Your task to perform on an android device: delete a single message in the gmail app Image 0: 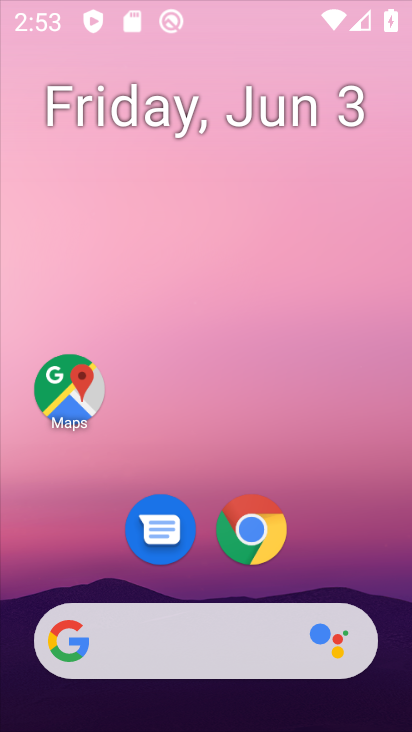
Step 0: drag from (389, 634) to (409, 169)
Your task to perform on an android device: delete a single message in the gmail app Image 1: 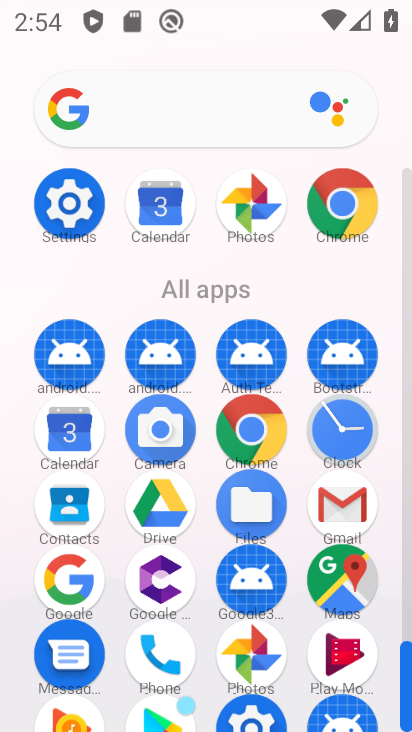
Step 1: click (332, 496)
Your task to perform on an android device: delete a single message in the gmail app Image 2: 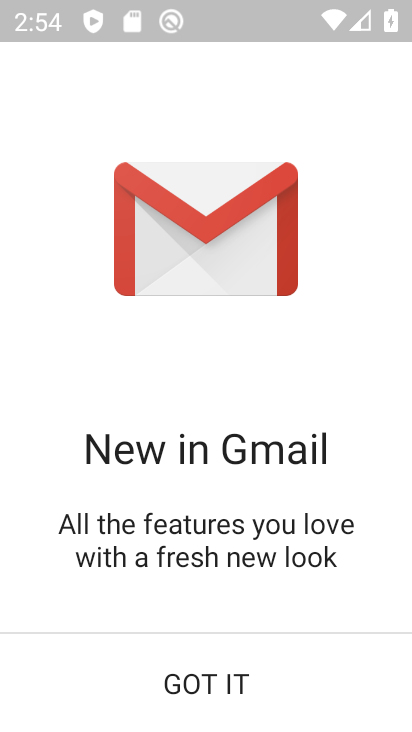
Step 2: click (231, 701)
Your task to perform on an android device: delete a single message in the gmail app Image 3: 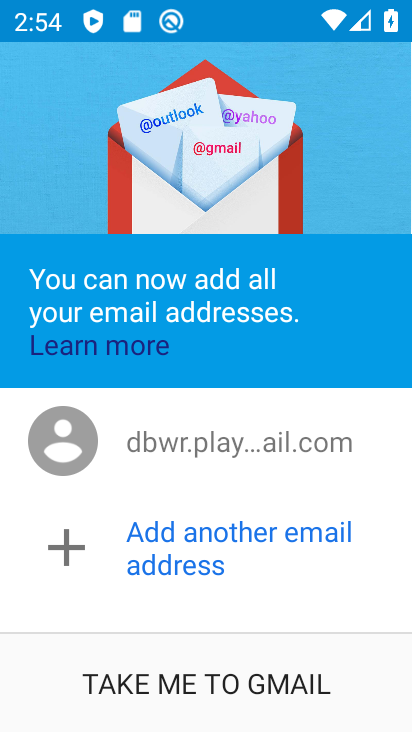
Step 3: click (247, 684)
Your task to perform on an android device: delete a single message in the gmail app Image 4: 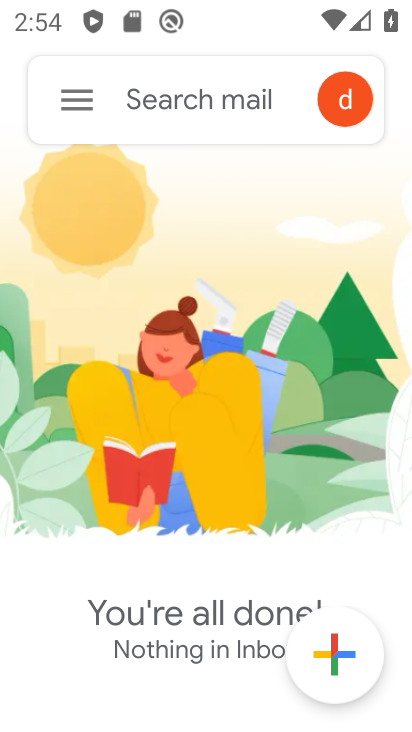
Step 4: click (63, 87)
Your task to perform on an android device: delete a single message in the gmail app Image 5: 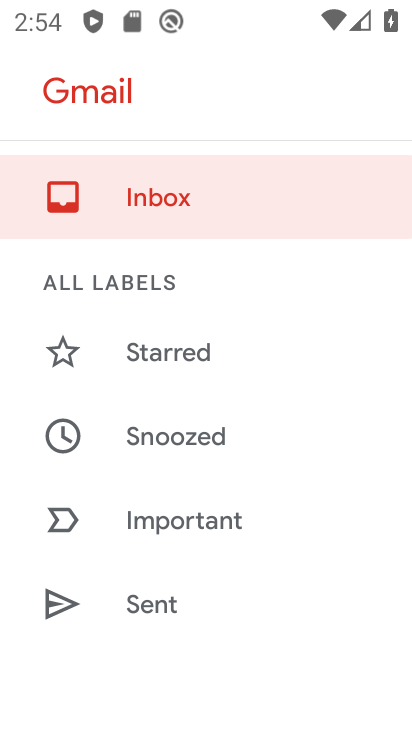
Step 5: click (145, 218)
Your task to perform on an android device: delete a single message in the gmail app Image 6: 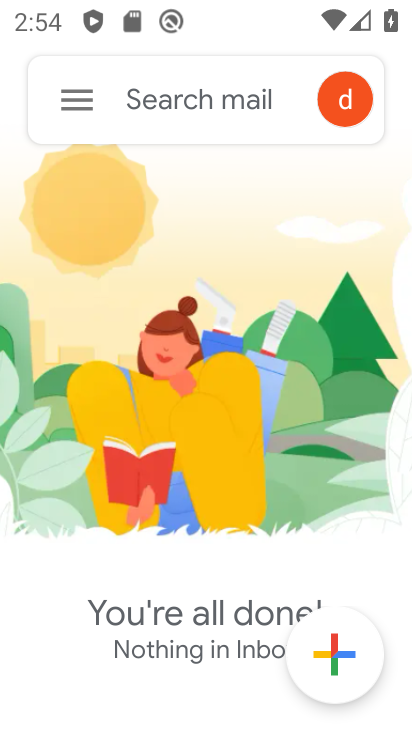
Step 6: task complete